Your task to perform on an android device: Do I have any events this weekend? Image 0: 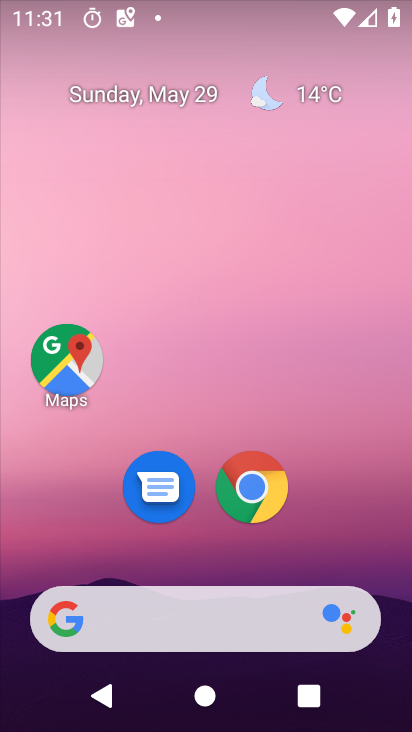
Step 0: drag from (409, 606) to (411, 55)
Your task to perform on an android device: Do I have any events this weekend? Image 1: 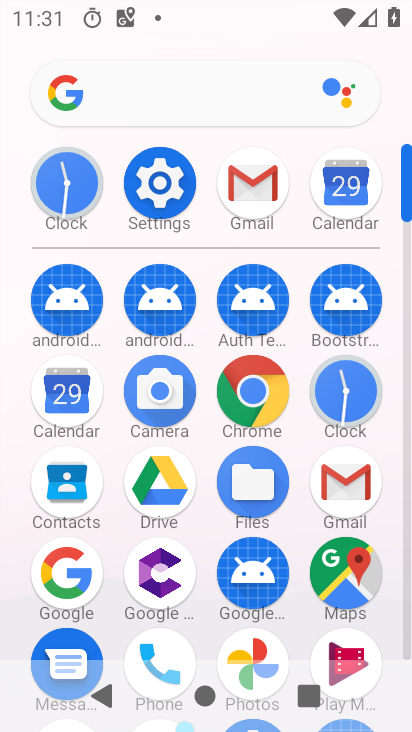
Step 1: click (70, 397)
Your task to perform on an android device: Do I have any events this weekend? Image 2: 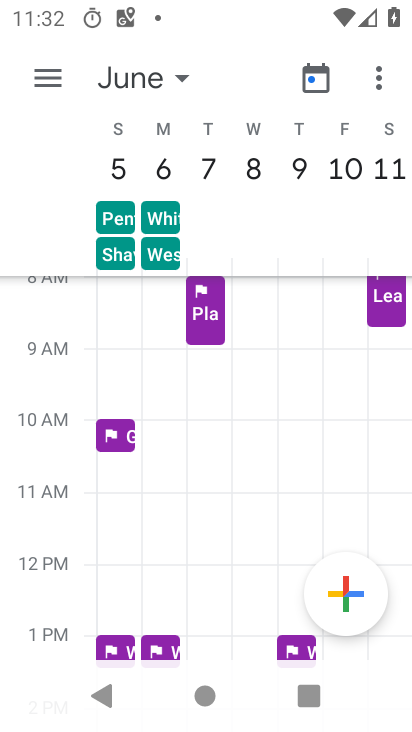
Step 2: click (43, 80)
Your task to perform on an android device: Do I have any events this weekend? Image 3: 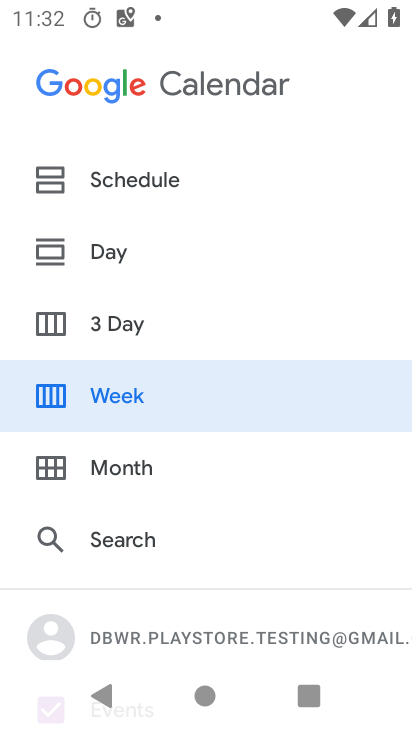
Step 3: click (258, 404)
Your task to perform on an android device: Do I have any events this weekend? Image 4: 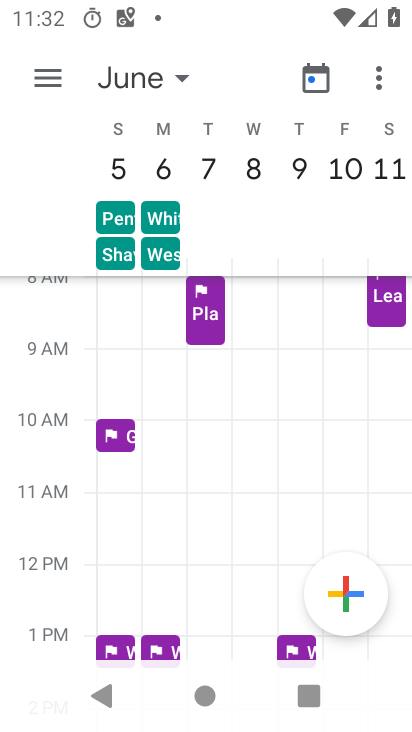
Step 4: click (179, 71)
Your task to perform on an android device: Do I have any events this weekend? Image 5: 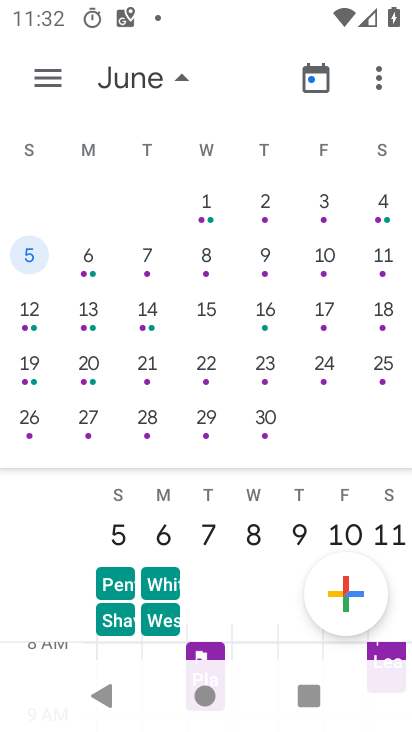
Step 5: drag from (8, 278) to (368, 305)
Your task to perform on an android device: Do I have any events this weekend? Image 6: 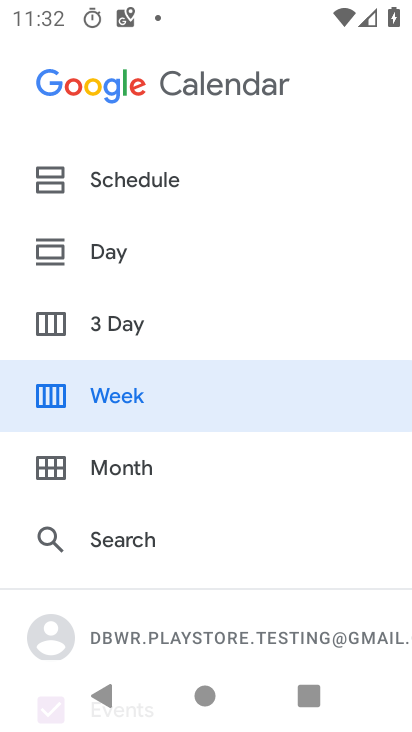
Step 6: click (224, 401)
Your task to perform on an android device: Do I have any events this weekend? Image 7: 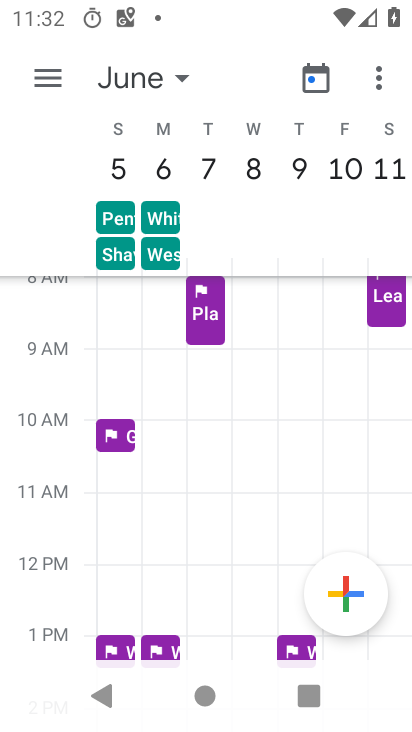
Step 7: task complete